Your task to perform on an android device: manage bookmarks in the chrome app Image 0: 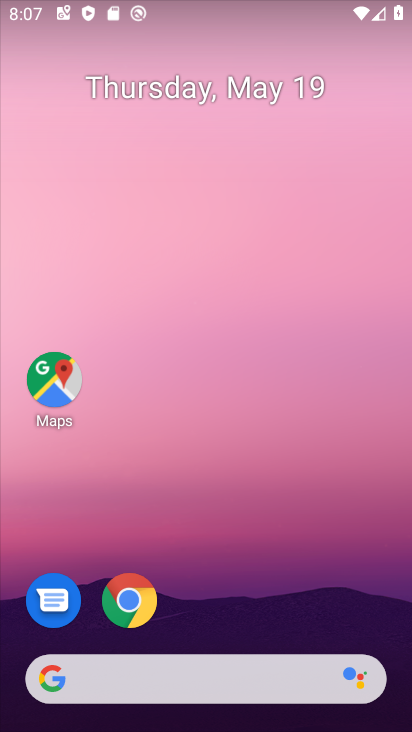
Step 0: click (139, 599)
Your task to perform on an android device: manage bookmarks in the chrome app Image 1: 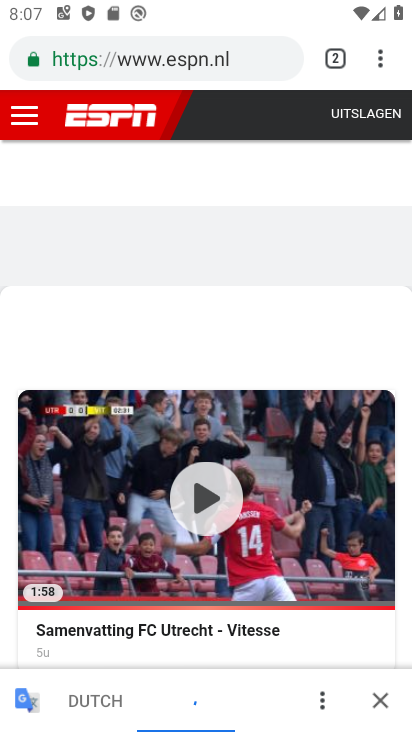
Step 1: click (380, 59)
Your task to perform on an android device: manage bookmarks in the chrome app Image 2: 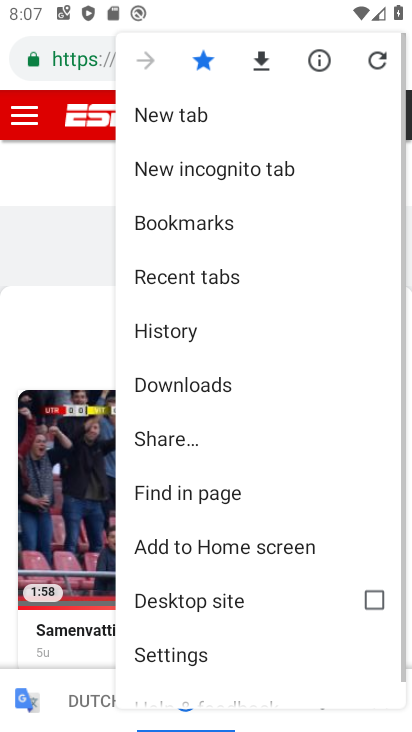
Step 2: click (160, 223)
Your task to perform on an android device: manage bookmarks in the chrome app Image 3: 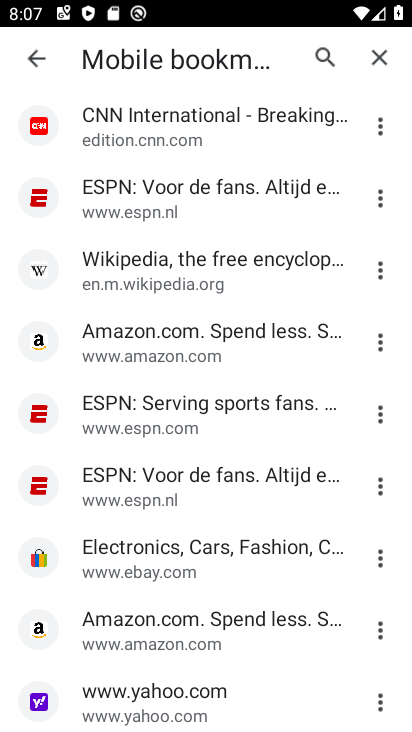
Step 3: click (381, 343)
Your task to perform on an android device: manage bookmarks in the chrome app Image 4: 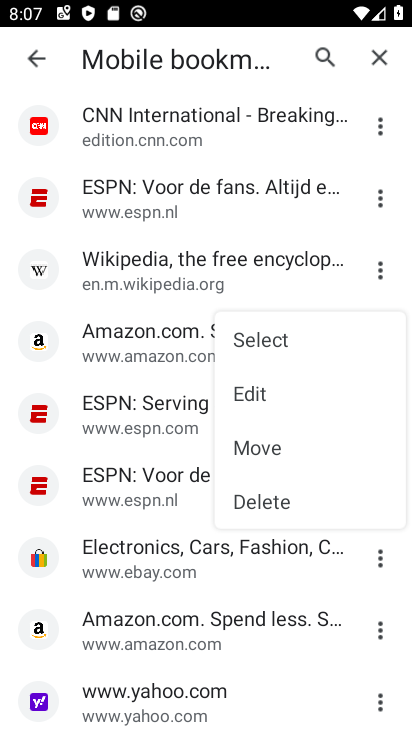
Step 4: click (244, 455)
Your task to perform on an android device: manage bookmarks in the chrome app Image 5: 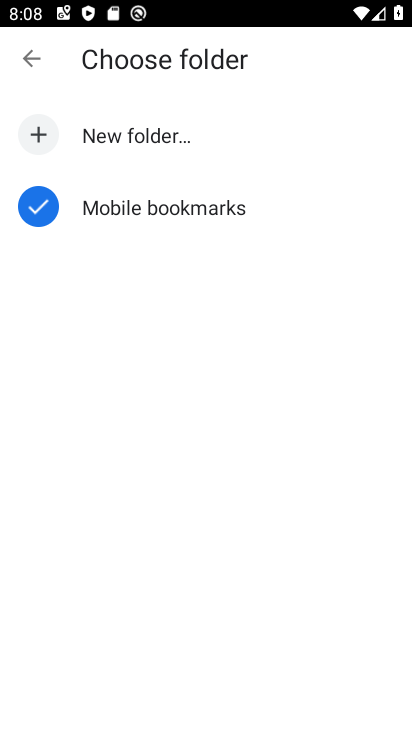
Step 5: click (137, 209)
Your task to perform on an android device: manage bookmarks in the chrome app Image 6: 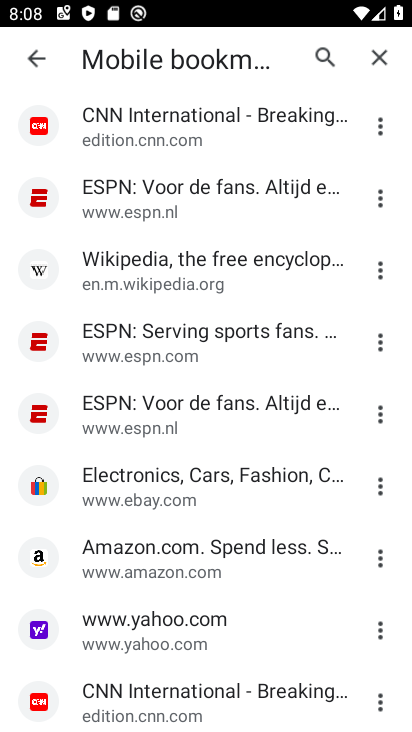
Step 6: task complete